Your task to perform on an android device: Open the phone app and click the voicemail tab. Image 0: 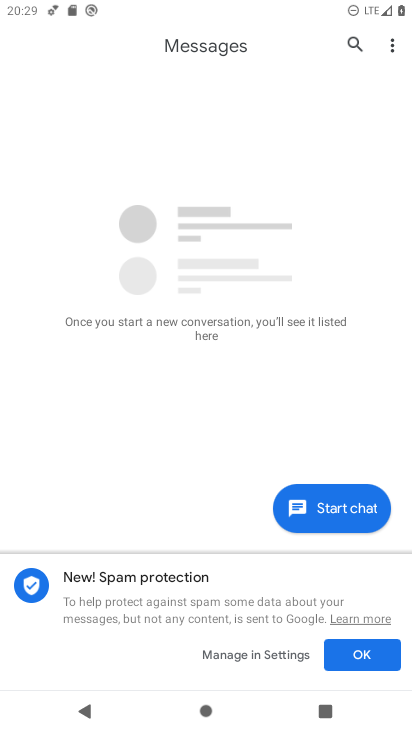
Step 0: press home button
Your task to perform on an android device: Open the phone app and click the voicemail tab. Image 1: 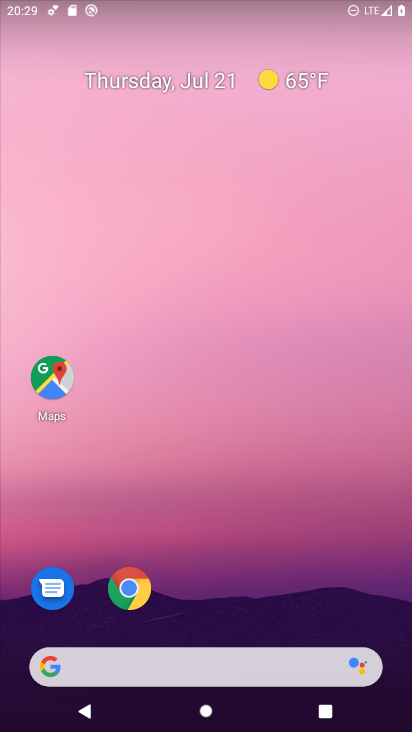
Step 1: drag from (241, 9) to (232, 539)
Your task to perform on an android device: Open the phone app and click the voicemail tab. Image 2: 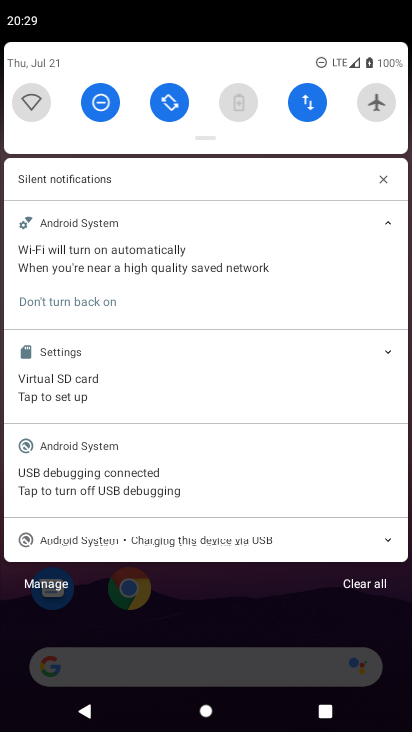
Step 2: click (289, 623)
Your task to perform on an android device: Open the phone app and click the voicemail tab. Image 3: 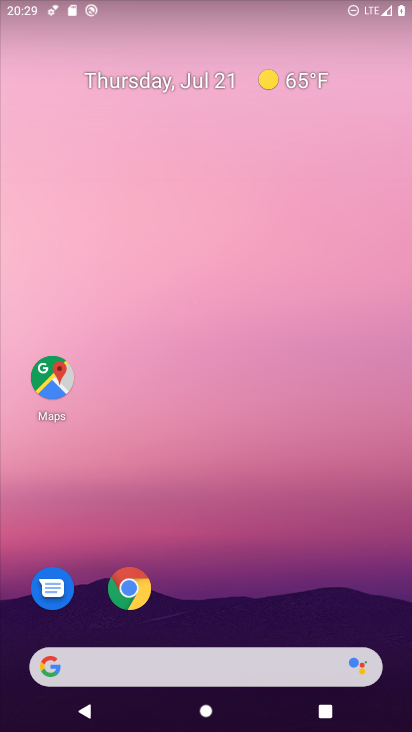
Step 3: drag from (244, 630) to (215, 209)
Your task to perform on an android device: Open the phone app and click the voicemail tab. Image 4: 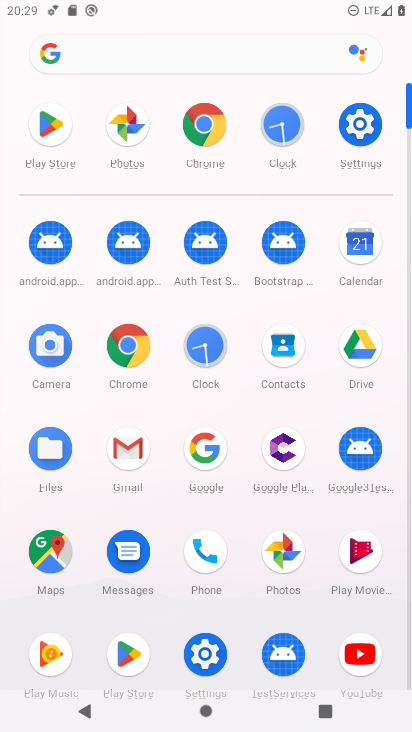
Step 4: click (212, 553)
Your task to perform on an android device: Open the phone app and click the voicemail tab. Image 5: 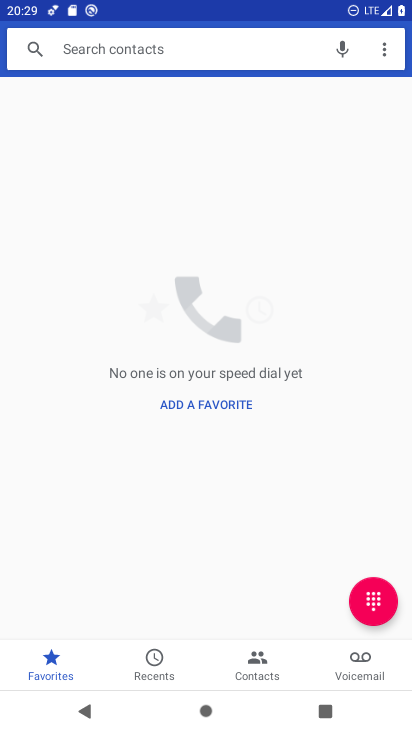
Step 5: click (344, 660)
Your task to perform on an android device: Open the phone app and click the voicemail tab. Image 6: 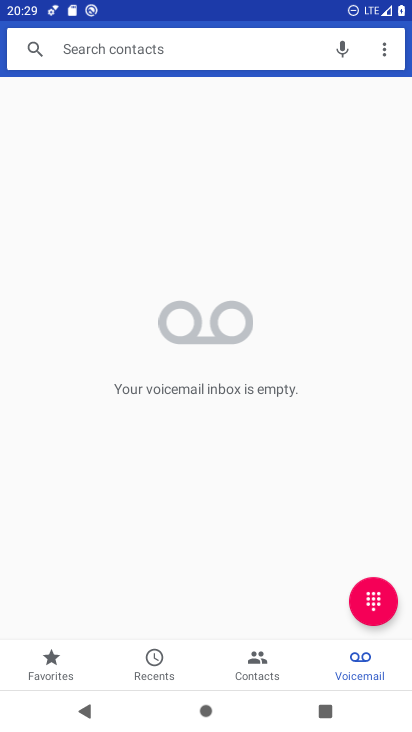
Step 6: task complete